Your task to perform on an android device: delete the emails in spam in the gmail app Image 0: 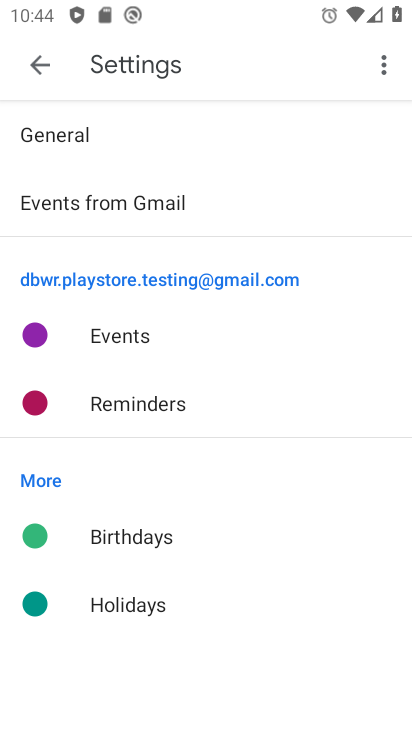
Step 0: press home button
Your task to perform on an android device: delete the emails in spam in the gmail app Image 1: 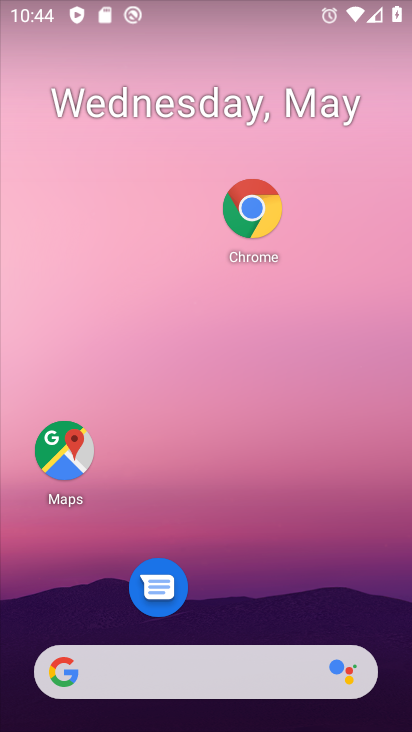
Step 1: drag from (224, 547) to (143, 172)
Your task to perform on an android device: delete the emails in spam in the gmail app Image 2: 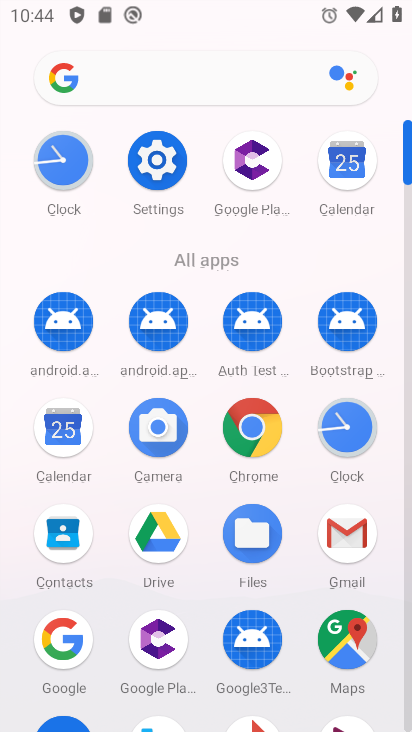
Step 2: click (340, 526)
Your task to perform on an android device: delete the emails in spam in the gmail app Image 3: 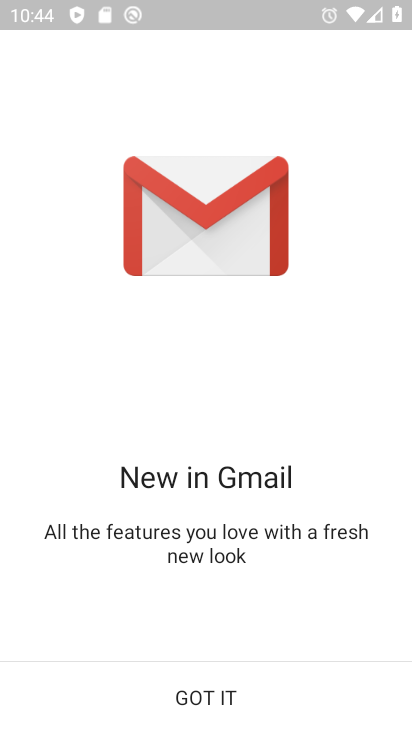
Step 3: click (176, 681)
Your task to perform on an android device: delete the emails in spam in the gmail app Image 4: 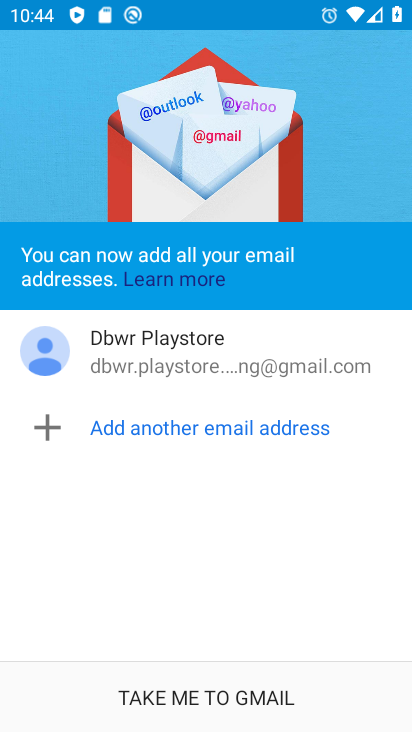
Step 4: click (195, 703)
Your task to perform on an android device: delete the emails in spam in the gmail app Image 5: 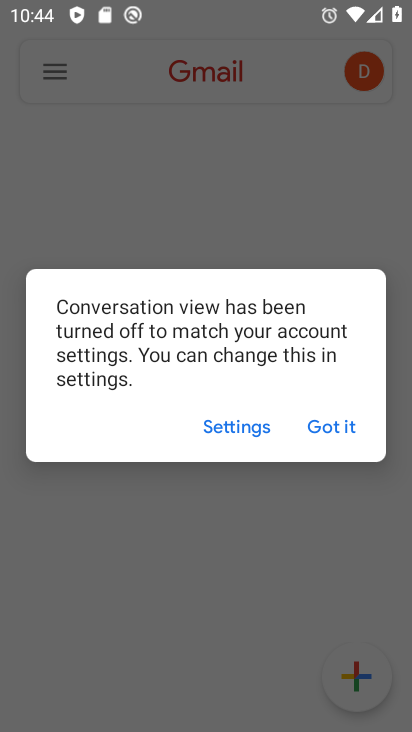
Step 5: click (337, 424)
Your task to perform on an android device: delete the emails in spam in the gmail app Image 6: 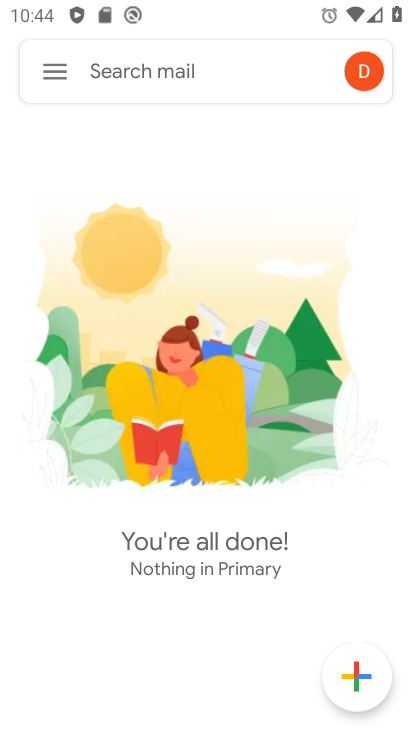
Step 6: click (48, 62)
Your task to perform on an android device: delete the emails in spam in the gmail app Image 7: 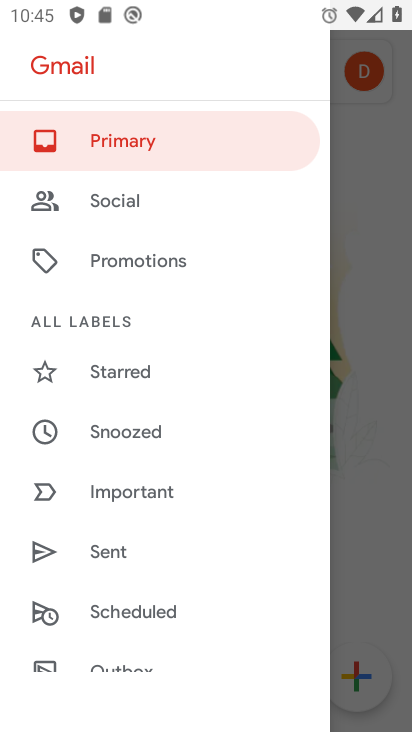
Step 7: drag from (122, 622) to (117, 319)
Your task to perform on an android device: delete the emails in spam in the gmail app Image 8: 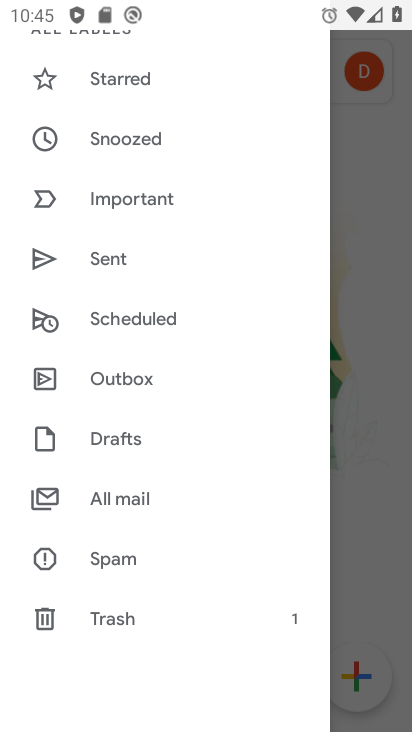
Step 8: click (116, 555)
Your task to perform on an android device: delete the emails in spam in the gmail app Image 9: 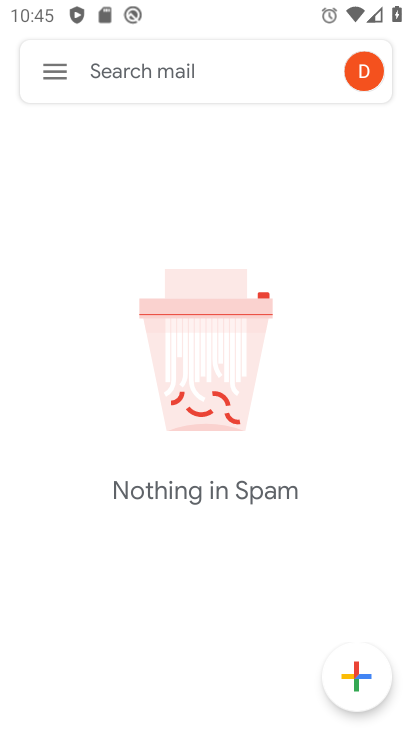
Step 9: task complete